Your task to perform on an android device: toggle location history Image 0: 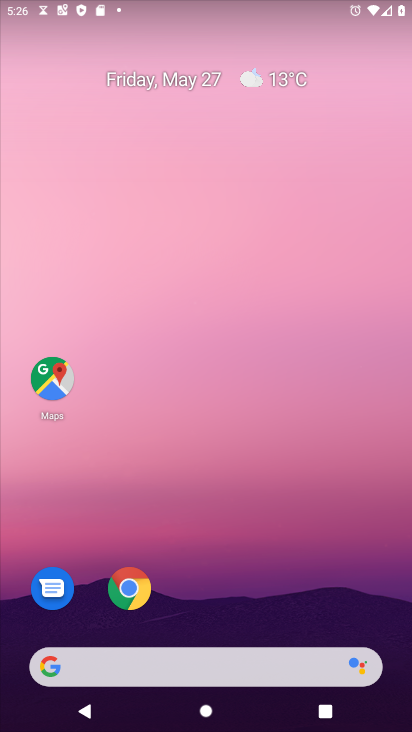
Step 0: drag from (230, 579) to (321, 53)
Your task to perform on an android device: toggle location history Image 1: 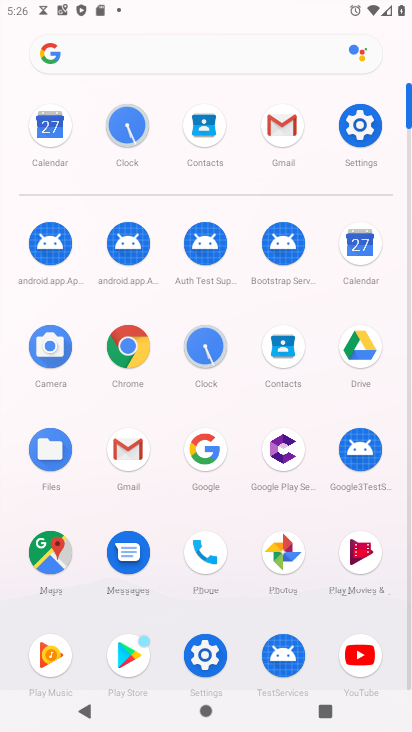
Step 1: click (360, 125)
Your task to perform on an android device: toggle location history Image 2: 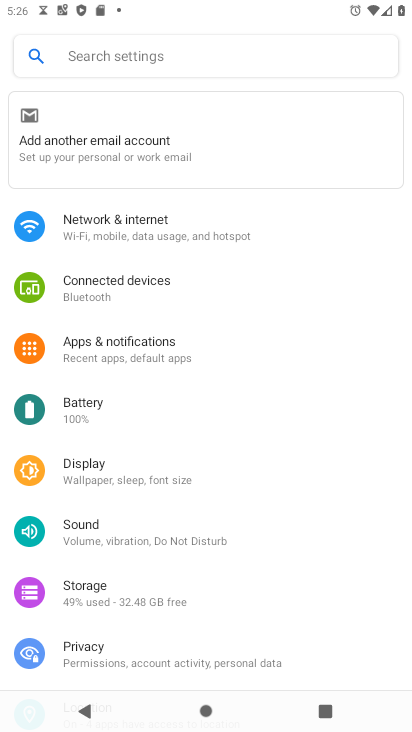
Step 2: drag from (125, 620) to (240, 182)
Your task to perform on an android device: toggle location history Image 3: 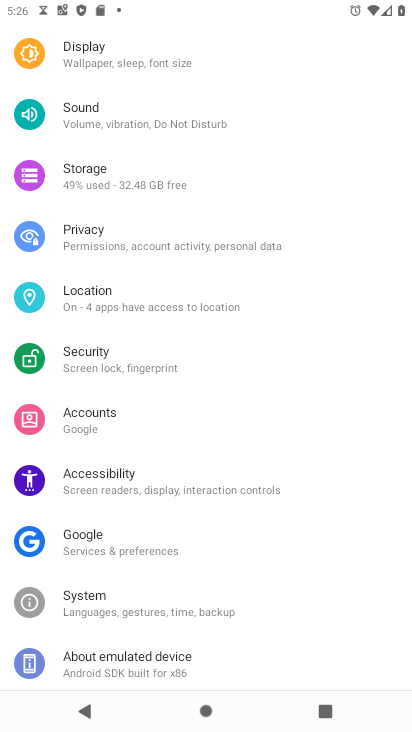
Step 3: click (133, 304)
Your task to perform on an android device: toggle location history Image 4: 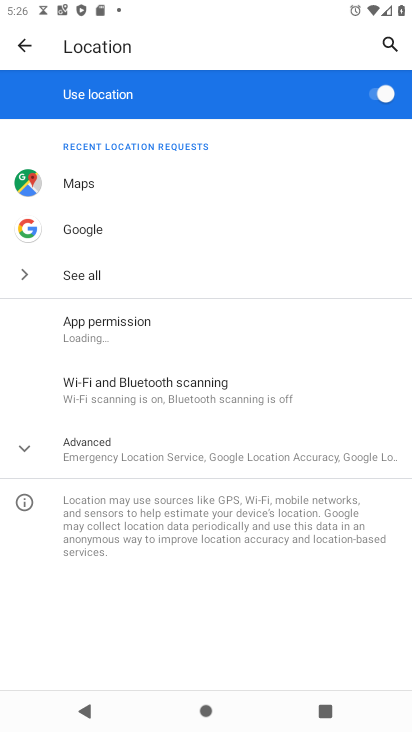
Step 4: click (134, 449)
Your task to perform on an android device: toggle location history Image 5: 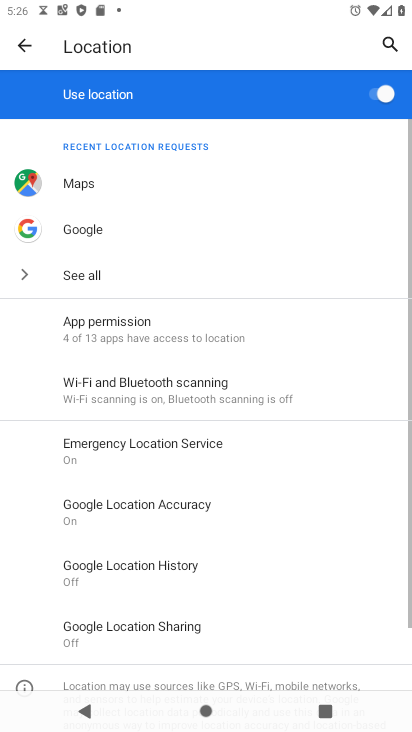
Step 5: click (171, 559)
Your task to perform on an android device: toggle location history Image 6: 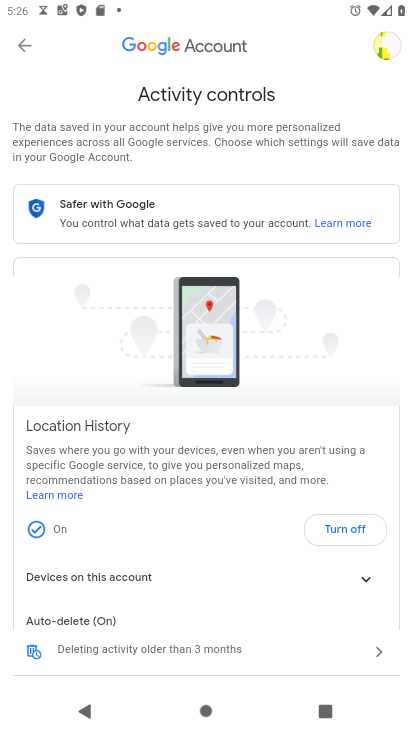
Step 6: click (344, 528)
Your task to perform on an android device: toggle location history Image 7: 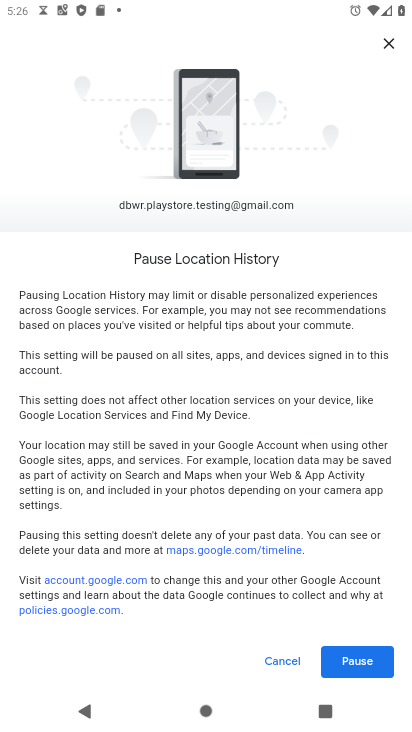
Step 7: drag from (216, 565) to (290, 90)
Your task to perform on an android device: toggle location history Image 8: 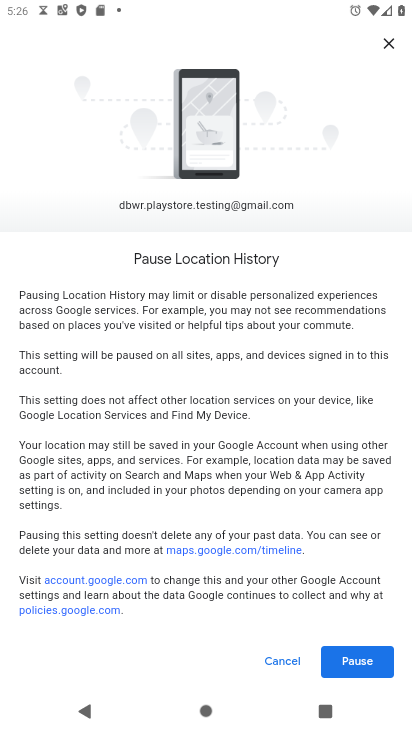
Step 8: click (368, 661)
Your task to perform on an android device: toggle location history Image 9: 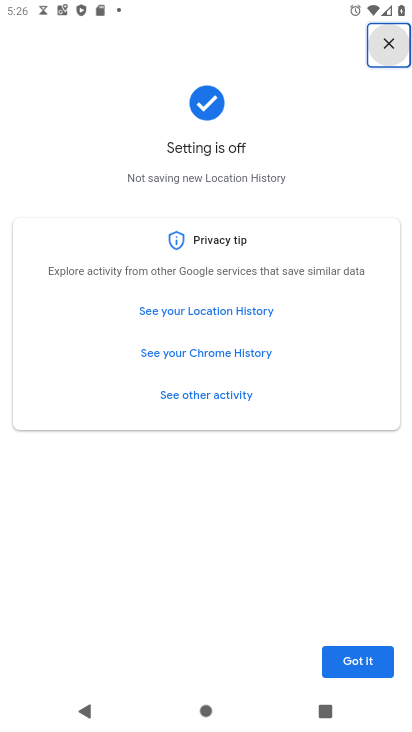
Step 9: click (345, 660)
Your task to perform on an android device: toggle location history Image 10: 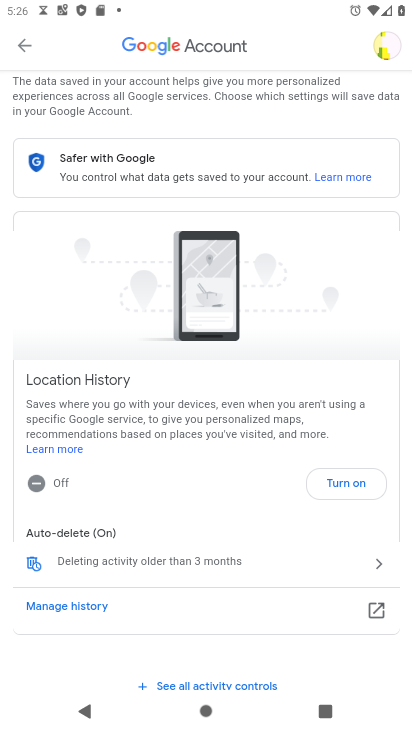
Step 10: task complete